Your task to perform on an android device: Go to location settings Image 0: 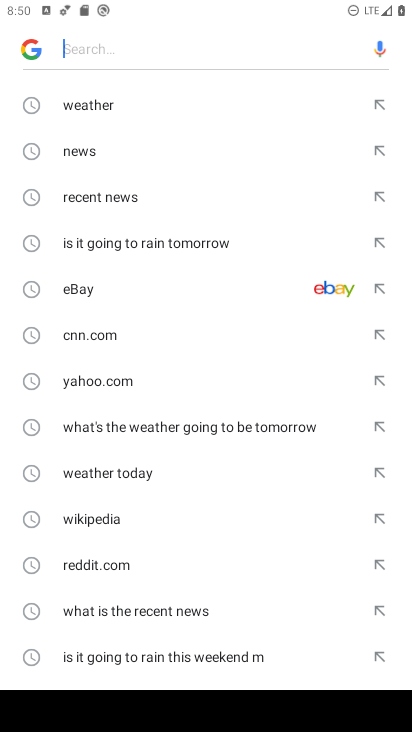
Step 0: press home button
Your task to perform on an android device: Go to location settings Image 1: 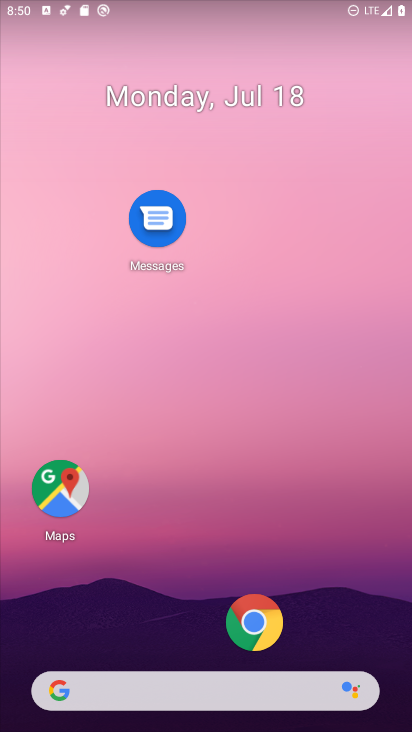
Step 1: drag from (192, 685) to (198, 195)
Your task to perform on an android device: Go to location settings Image 2: 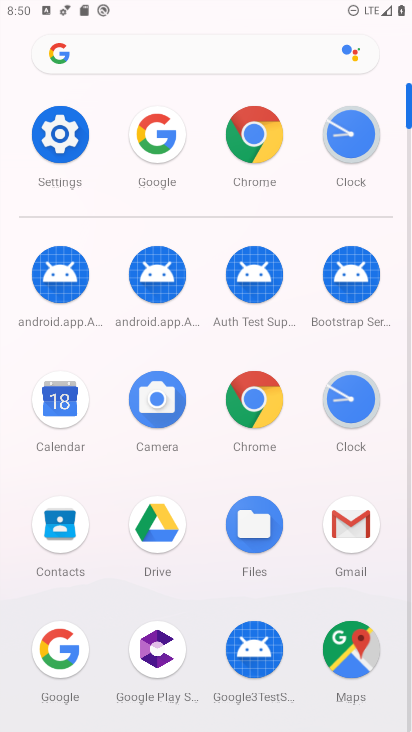
Step 2: click (69, 163)
Your task to perform on an android device: Go to location settings Image 3: 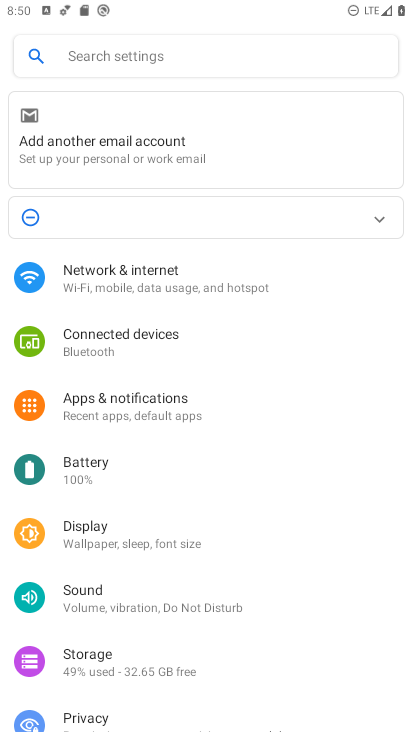
Step 3: drag from (170, 570) to (171, 201)
Your task to perform on an android device: Go to location settings Image 4: 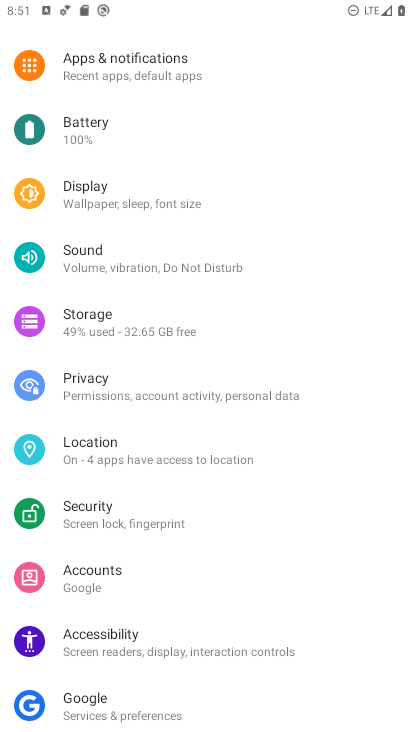
Step 4: click (174, 443)
Your task to perform on an android device: Go to location settings Image 5: 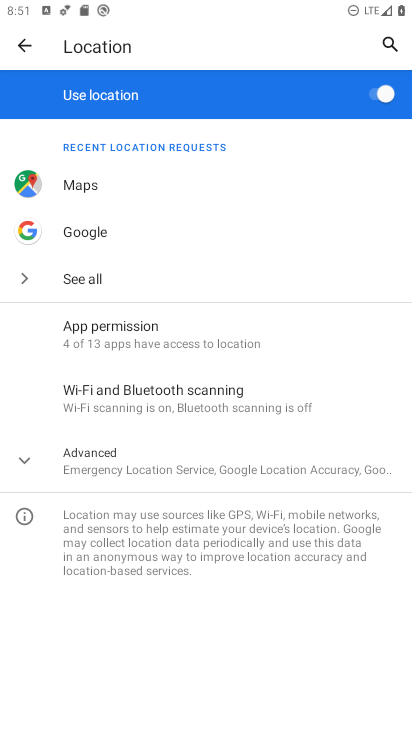
Step 5: click (160, 475)
Your task to perform on an android device: Go to location settings Image 6: 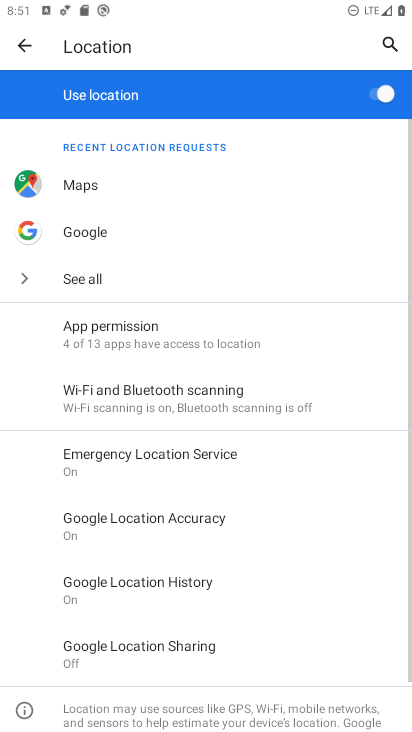
Step 6: task complete